Your task to perform on an android device: Open Chrome and go to the settings page Image 0: 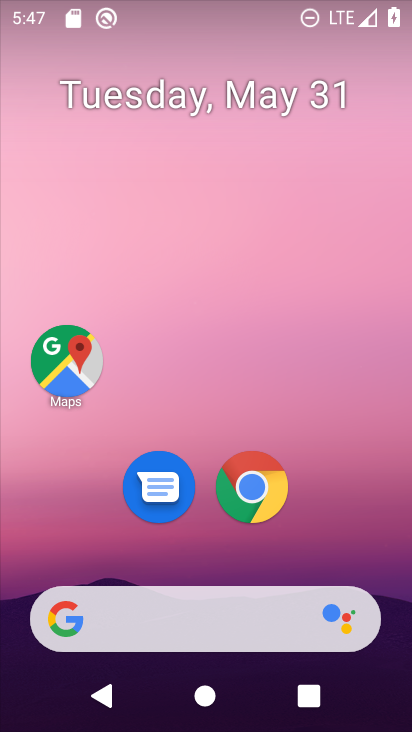
Step 0: click (258, 485)
Your task to perform on an android device: Open Chrome and go to the settings page Image 1: 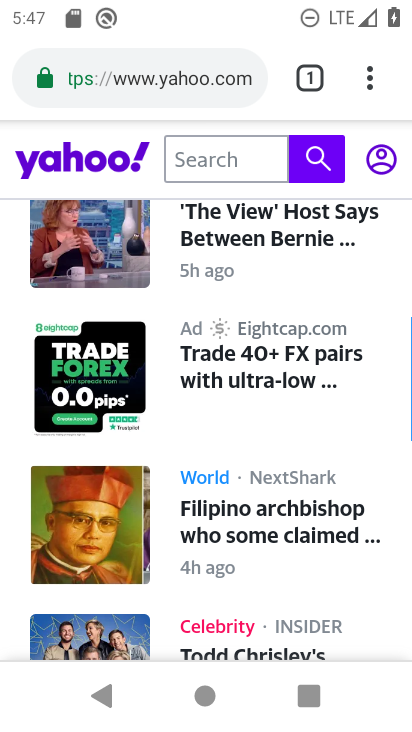
Step 1: click (370, 75)
Your task to perform on an android device: Open Chrome and go to the settings page Image 2: 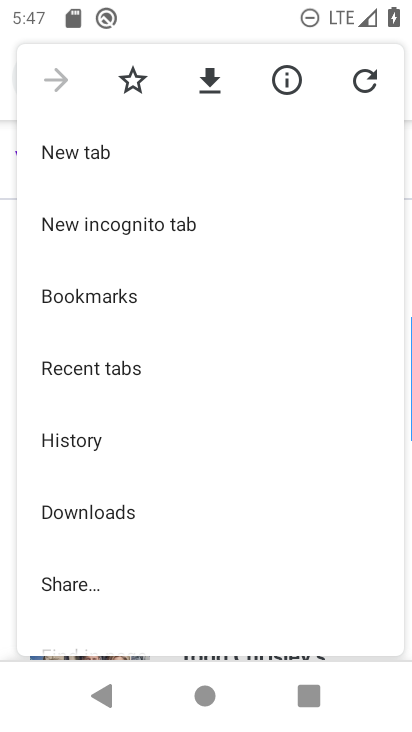
Step 2: drag from (178, 482) to (166, 121)
Your task to perform on an android device: Open Chrome and go to the settings page Image 3: 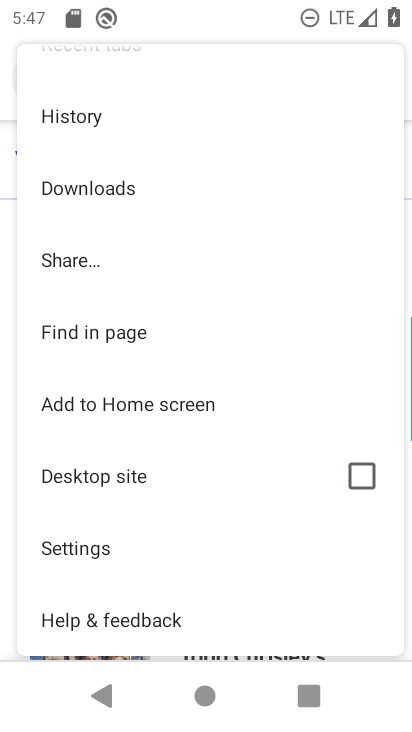
Step 3: click (88, 539)
Your task to perform on an android device: Open Chrome and go to the settings page Image 4: 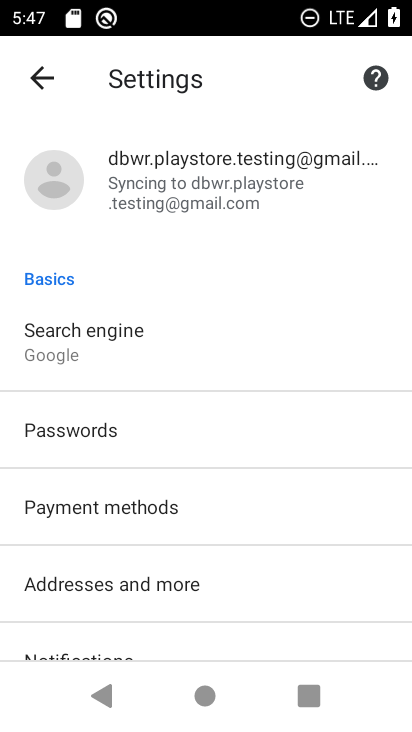
Step 4: task complete